Your task to perform on an android device: remove spam from my inbox in the gmail app Image 0: 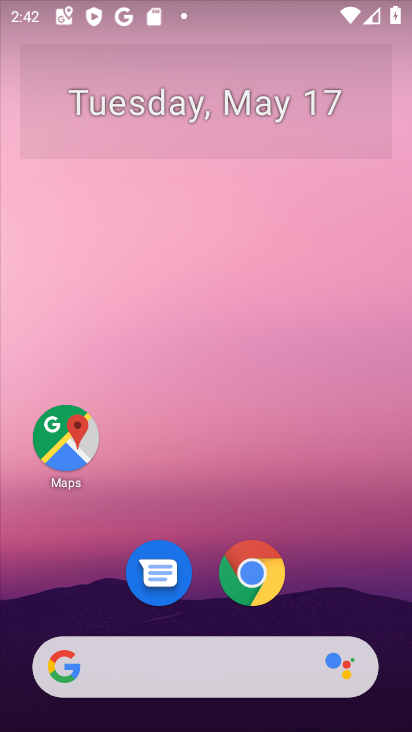
Step 0: click (356, 203)
Your task to perform on an android device: remove spam from my inbox in the gmail app Image 1: 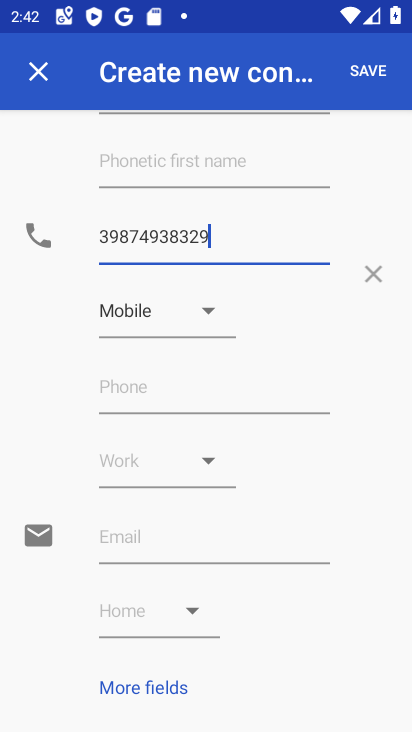
Step 1: press home button
Your task to perform on an android device: remove spam from my inbox in the gmail app Image 2: 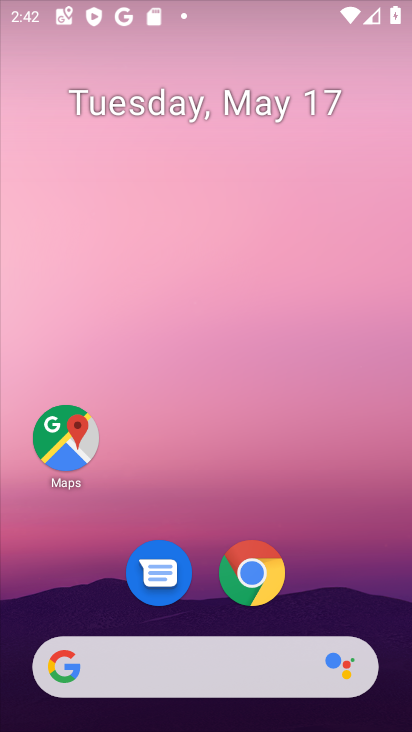
Step 2: drag from (327, 502) to (330, 184)
Your task to perform on an android device: remove spam from my inbox in the gmail app Image 3: 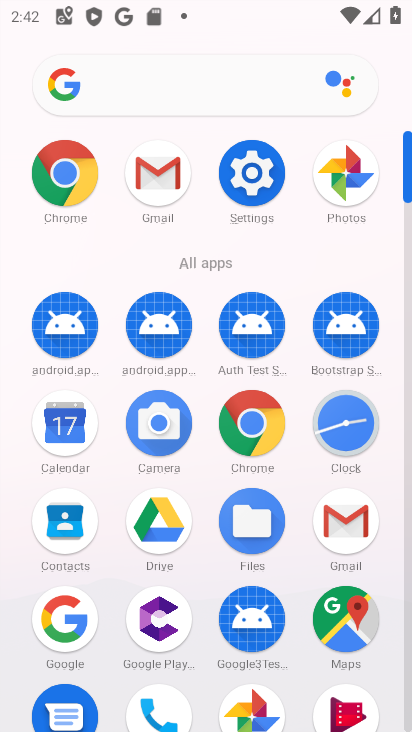
Step 3: click (350, 529)
Your task to perform on an android device: remove spam from my inbox in the gmail app Image 4: 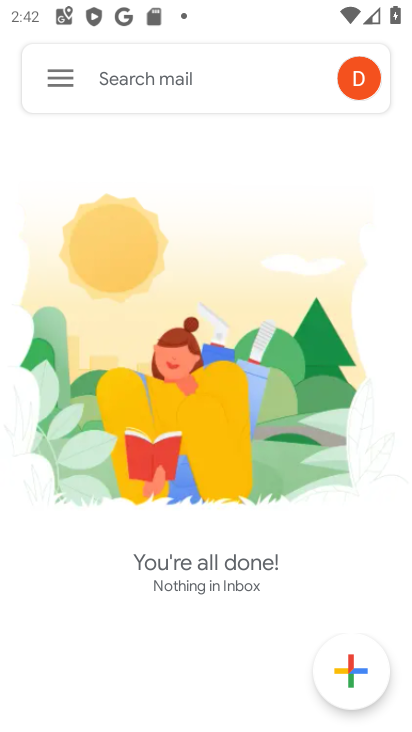
Step 4: click (60, 80)
Your task to perform on an android device: remove spam from my inbox in the gmail app Image 5: 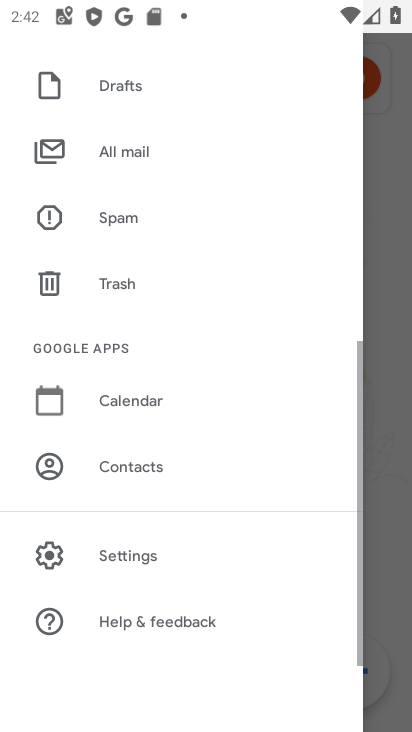
Step 5: drag from (185, 556) to (270, 213)
Your task to perform on an android device: remove spam from my inbox in the gmail app Image 6: 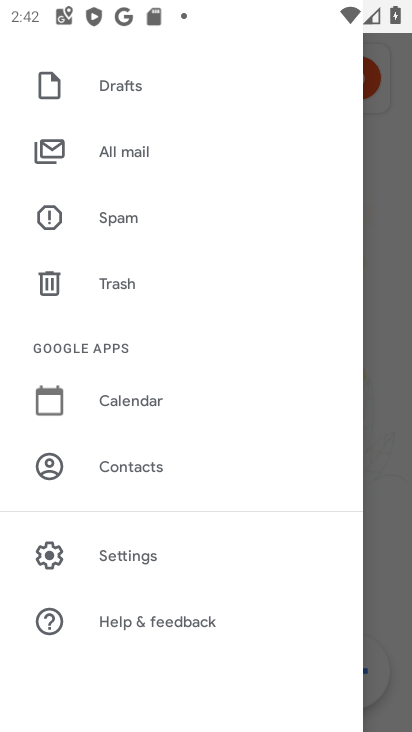
Step 6: click (136, 225)
Your task to perform on an android device: remove spam from my inbox in the gmail app Image 7: 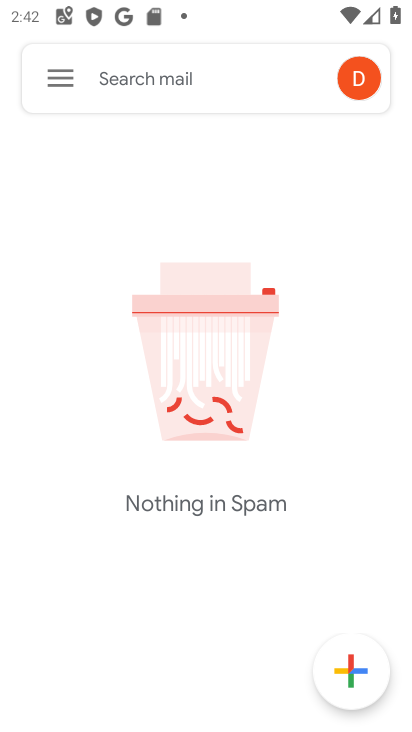
Step 7: task complete